Your task to perform on an android device: set default search engine in the chrome app Image 0: 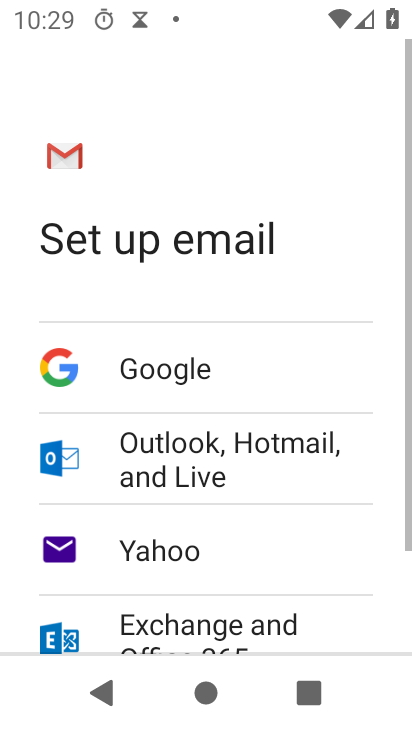
Step 0: press home button
Your task to perform on an android device: set default search engine in the chrome app Image 1: 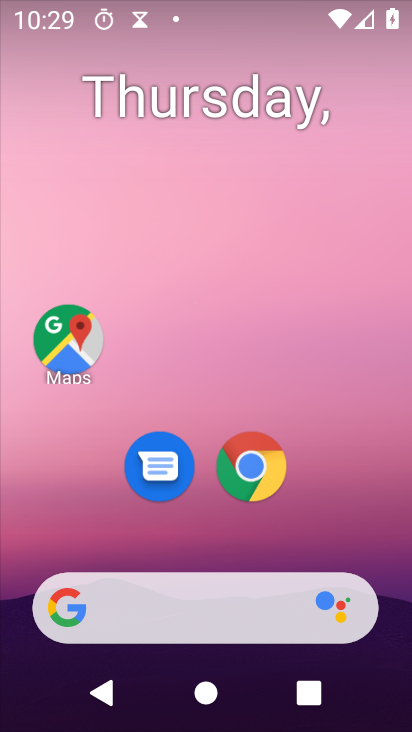
Step 1: drag from (157, 587) to (301, 99)
Your task to perform on an android device: set default search engine in the chrome app Image 2: 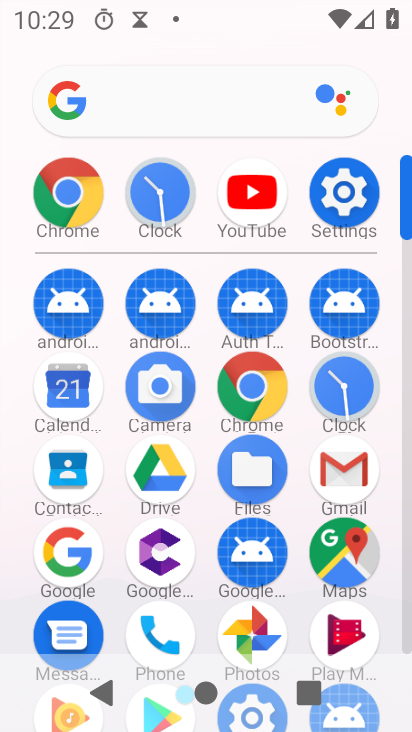
Step 2: click (70, 204)
Your task to perform on an android device: set default search engine in the chrome app Image 3: 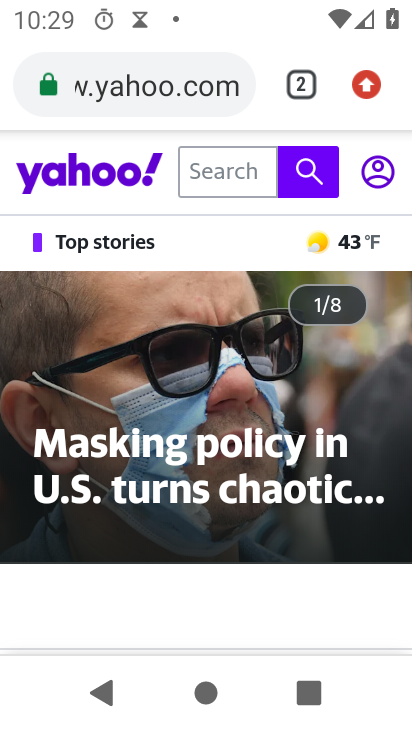
Step 3: click (362, 98)
Your task to perform on an android device: set default search engine in the chrome app Image 4: 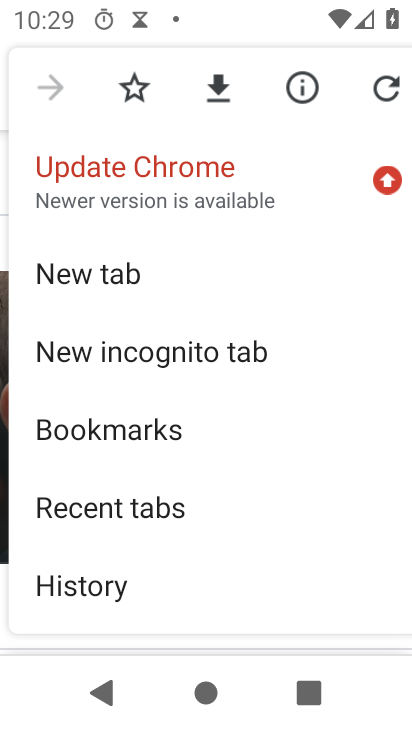
Step 4: drag from (135, 601) to (295, 144)
Your task to perform on an android device: set default search engine in the chrome app Image 5: 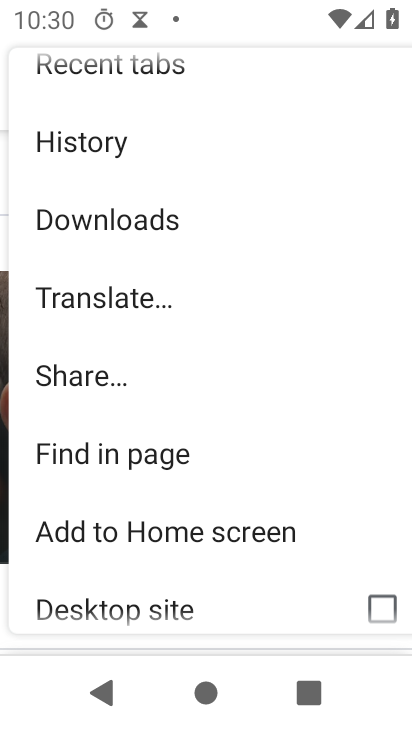
Step 5: drag from (140, 582) to (274, 166)
Your task to perform on an android device: set default search engine in the chrome app Image 6: 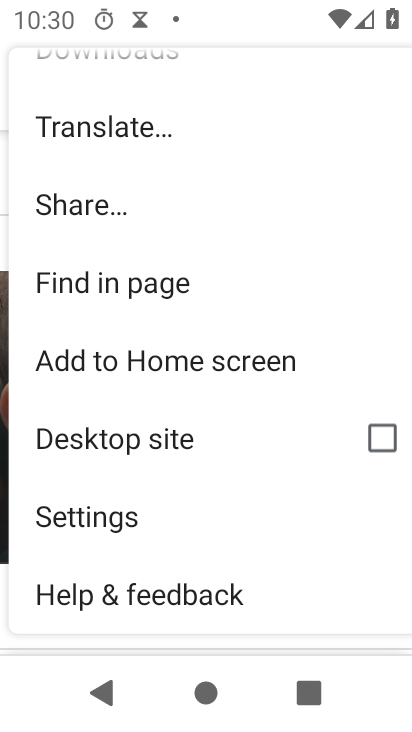
Step 6: click (117, 513)
Your task to perform on an android device: set default search engine in the chrome app Image 7: 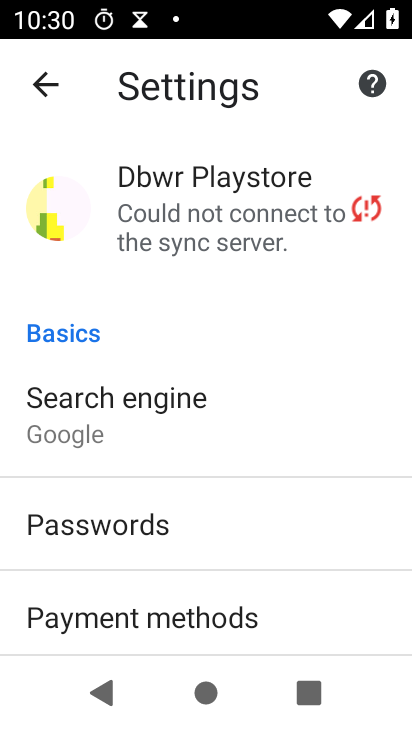
Step 7: drag from (156, 557) to (213, 425)
Your task to perform on an android device: set default search engine in the chrome app Image 8: 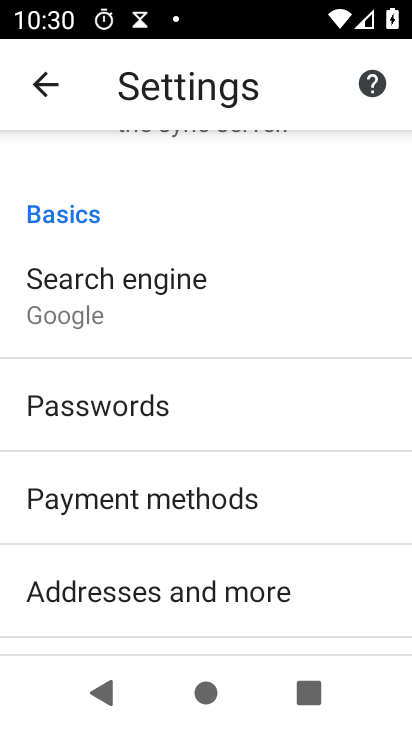
Step 8: click (117, 291)
Your task to perform on an android device: set default search engine in the chrome app Image 9: 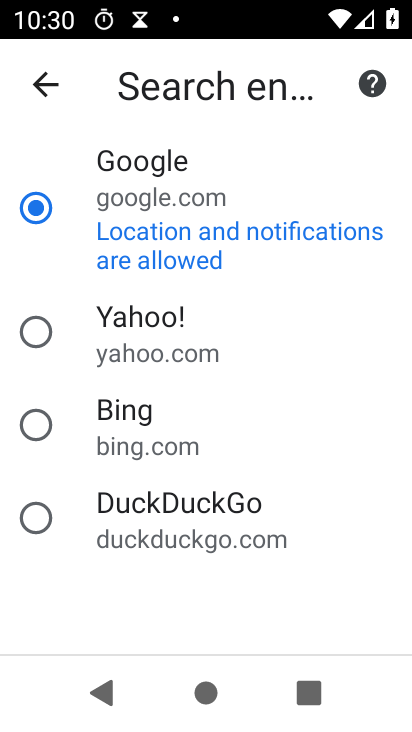
Step 9: click (34, 325)
Your task to perform on an android device: set default search engine in the chrome app Image 10: 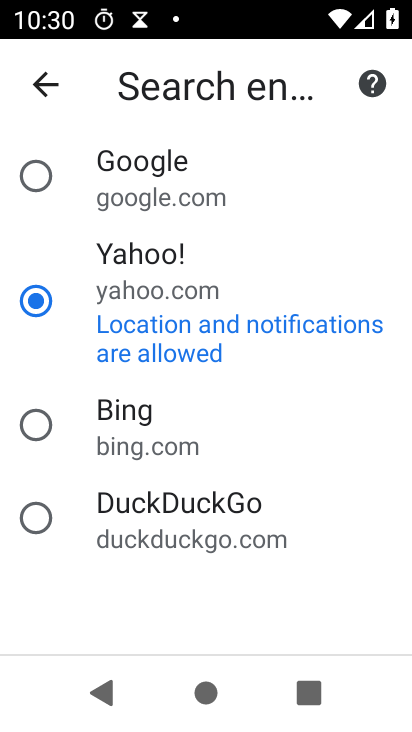
Step 10: task complete